Your task to perform on an android device: Search for seafood restaurants on Google Maps Image 0: 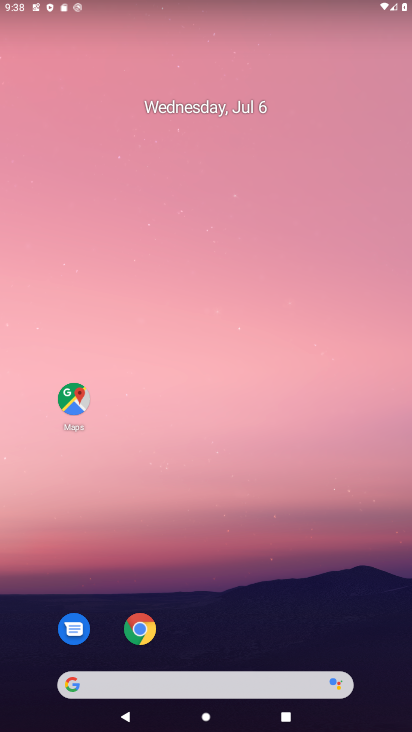
Step 0: drag from (221, 647) to (215, 100)
Your task to perform on an android device: Search for seafood restaurants on Google Maps Image 1: 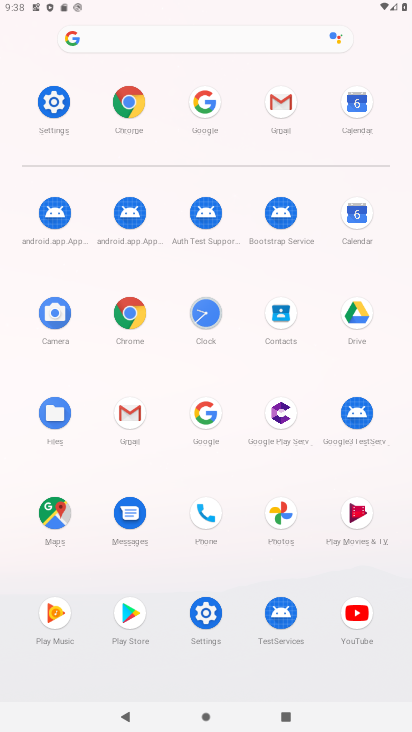
Step 1: click (57, 517)
Your task to perform on an android device: Search for seafood restaurants on Google Maps Image 2: 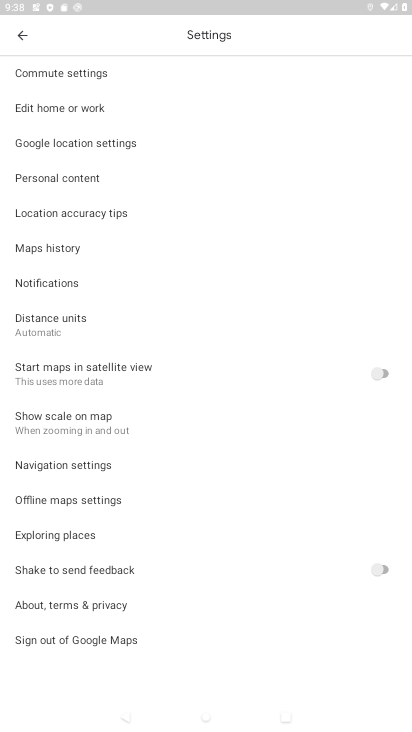
Step 2: press back button
Your task to perform on an android device: Search for seafood restaurants on Google Maps Image 3: 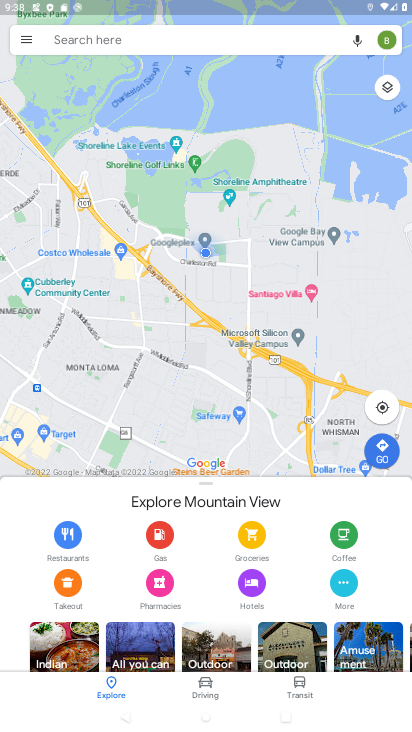
Step 3: click (183, 42)
Your task to perform on an android device: Search for seafood restaurants on Google Maps Image 4: 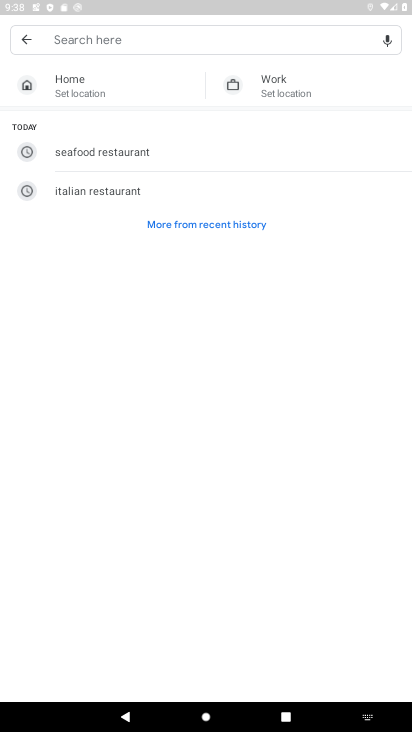
Step 4: click (156, 154)
Your task to perform on an android device: Search for seafood restaurants on Google Maps Image 5: 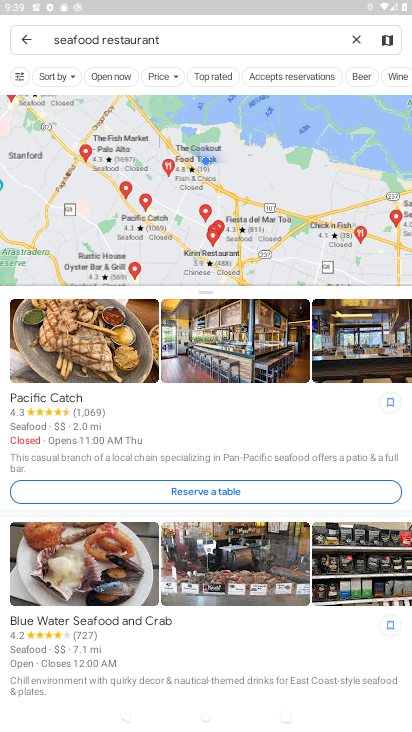
Step 5: task complete